Your task to perform on an android device: open wifi settings Image 0: 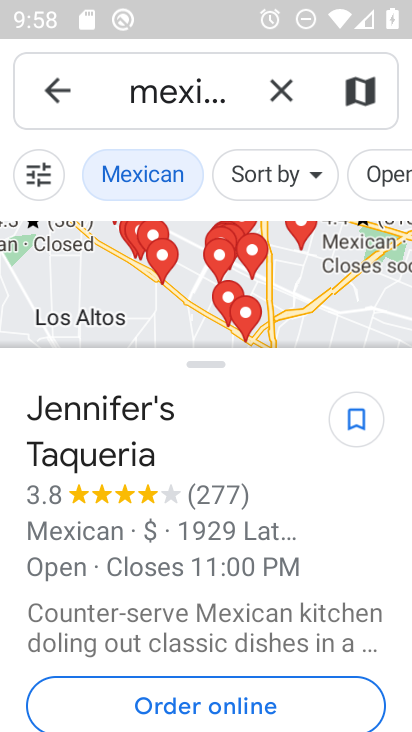
Step 0: press home button
Your task to perform on an android device: open wifi settings Image 1: 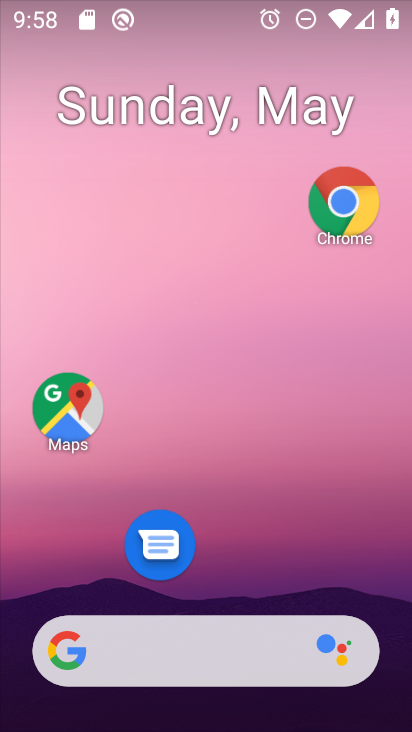
Step 1: drag from (242, 565) to (189, 54)
Your task to perform on an android device: open wifi settings Image 2: 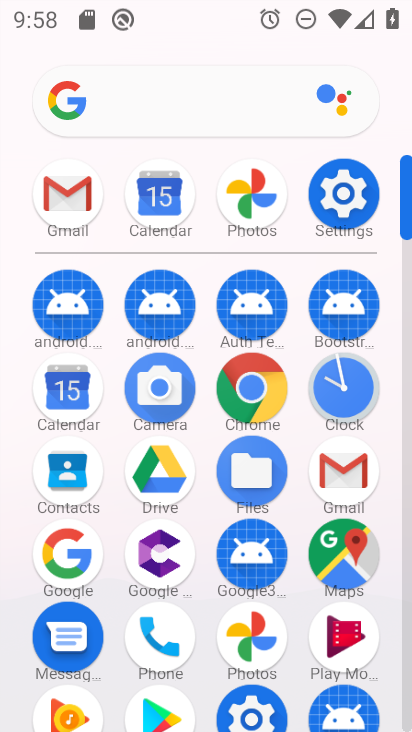
Step 2: click (323, 191)
Your task to perform on an android device: open wifi settings Image 3: 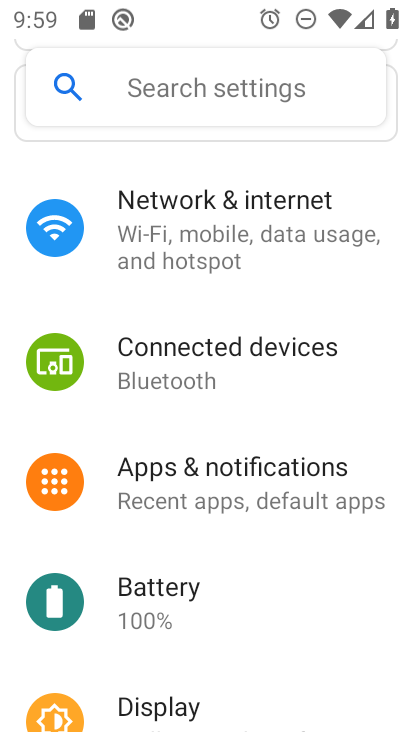
Step 3: click (171, 248)
Your task to perform on an android device: open wifi settings Image 4: 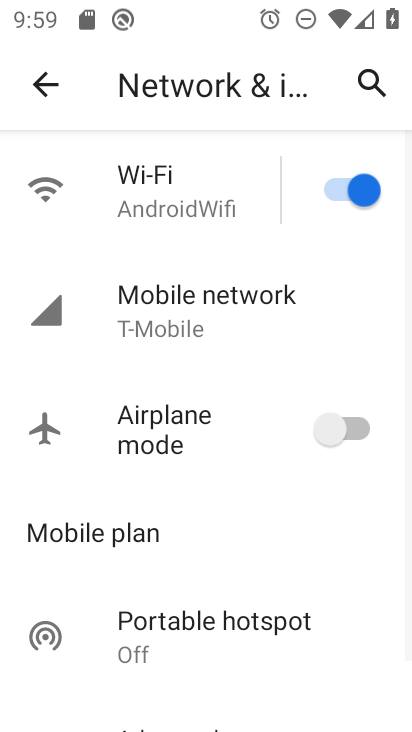
Step 4: click (163, 205)
Your task to perform on an android device: open wifi settings Image 5: 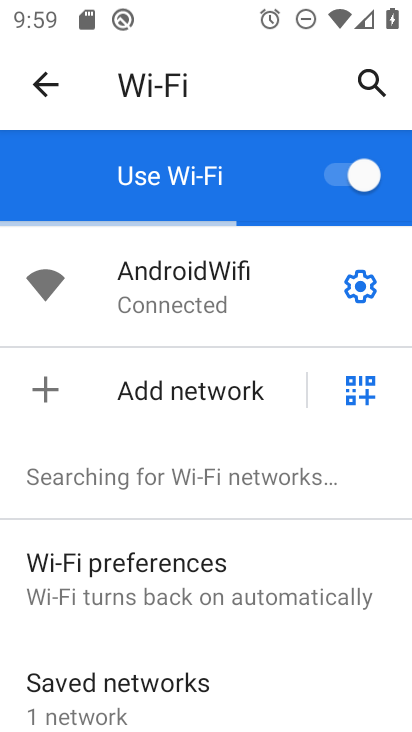
Step 5: task complete